Your task to perform on an android device: Open Chrome and go to the settings page Image 0: 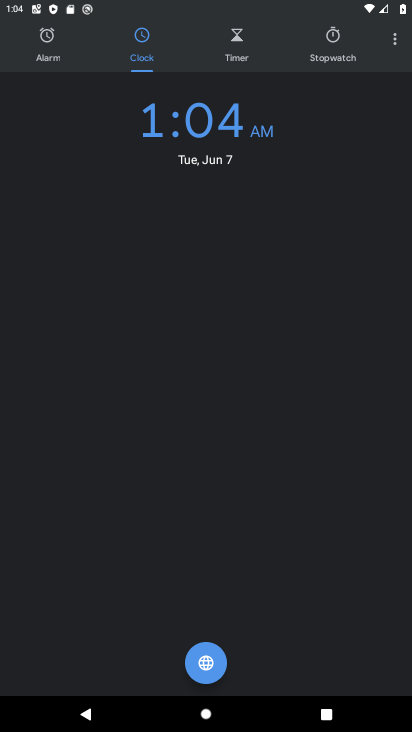
Step 0: press home button
Your task to perform on an android device: Open Chrome and go to the settings page Image 1: 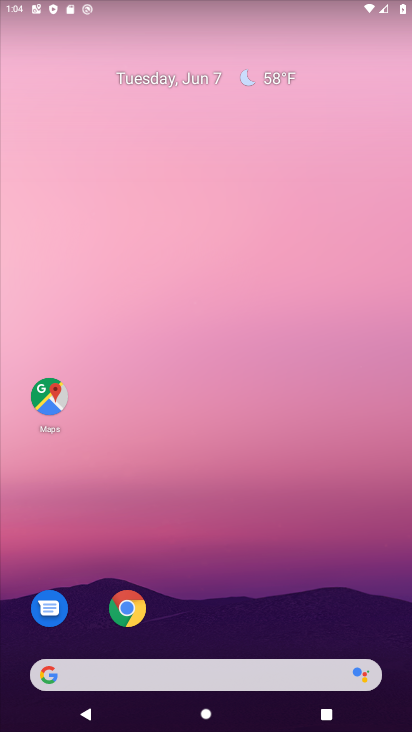
Step 1: drag from (321, 597) to (222, 196)
Your task to perform on an android device: Open Chrome and go to the settings page Image 2: 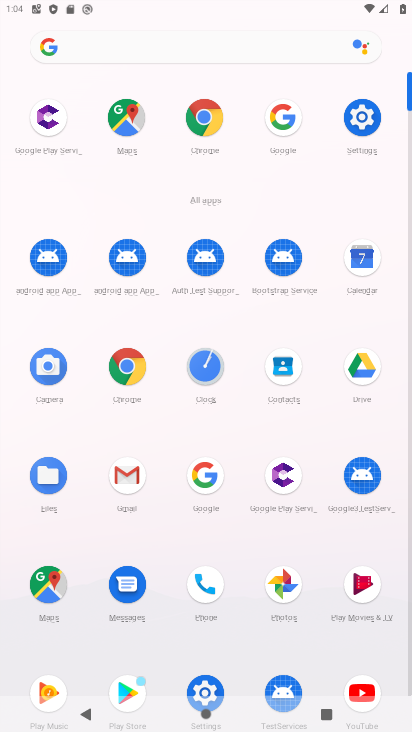
Step 2: click (127, 362)
Your task to perform on an android device: Open Chrome and go to the settings page Image 3: 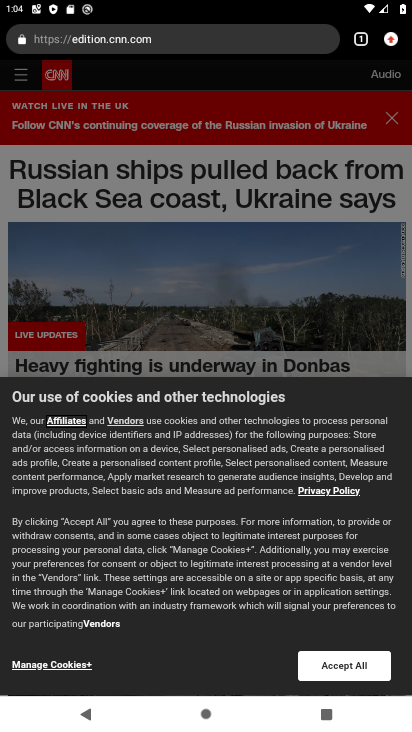
Step 3: task complete